Your task to perform on an android device: read, delete, or share a saved page in the chrome app Image 0: 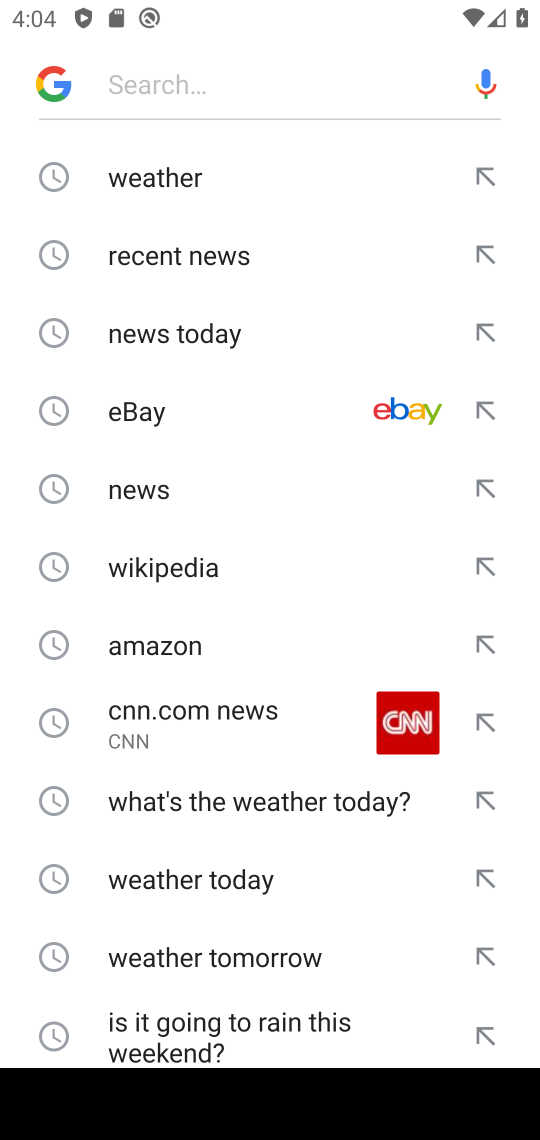
Step 0: press home button
Your task to perform on an android device: read, delete, or share a saved page in the chrome app Image 1: 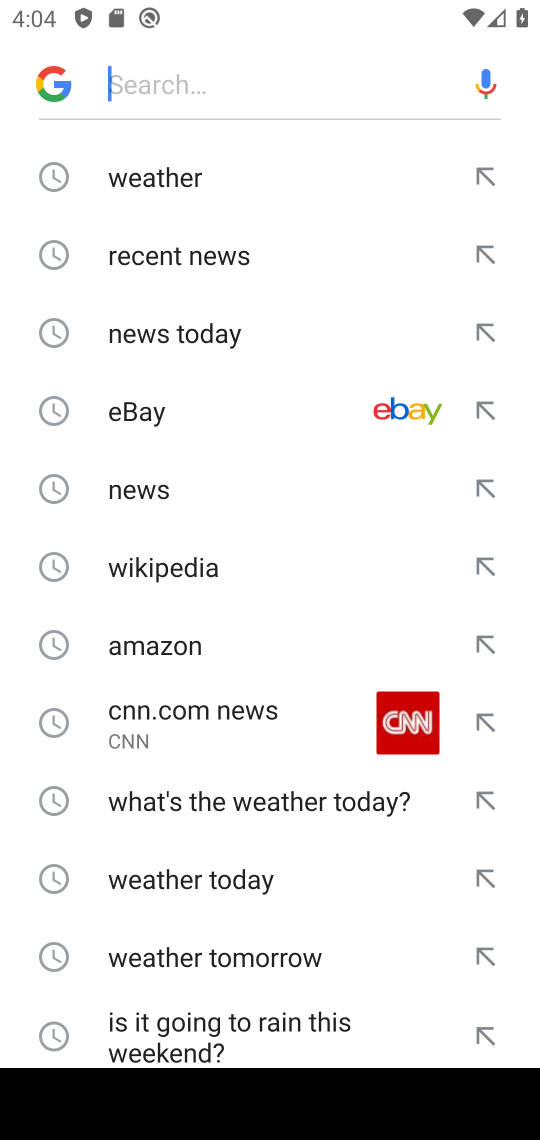
Step 1: press home button
Your task to perform on an android device: read, delete, or share a saved page in the chrome app Image 2: 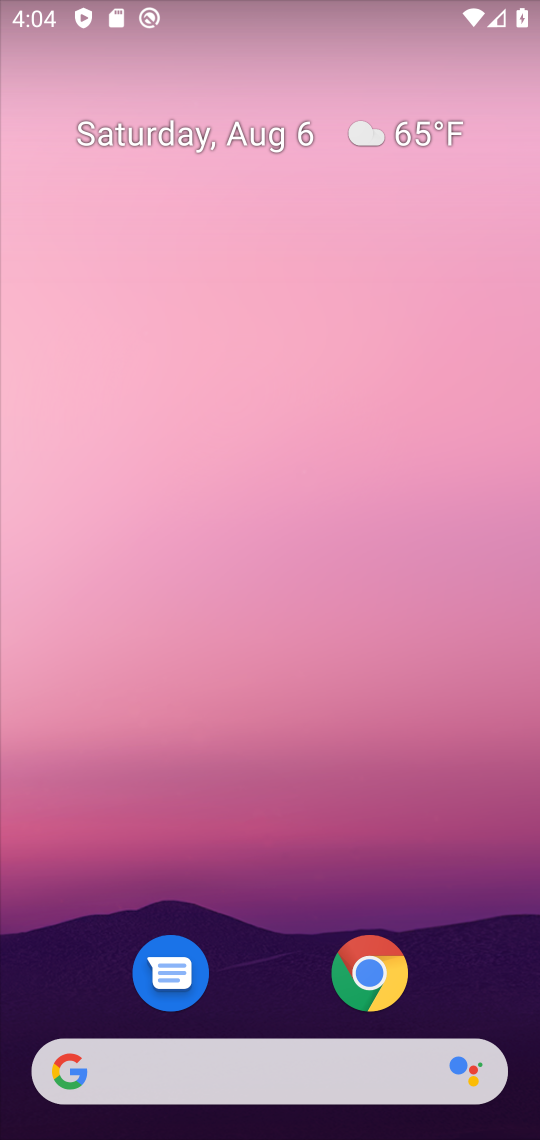
Step 2: drag from (261, 715) to (259, 113)
Your task to perform on an android device: read, delete, or share a saved page in the chrome app Image 3: 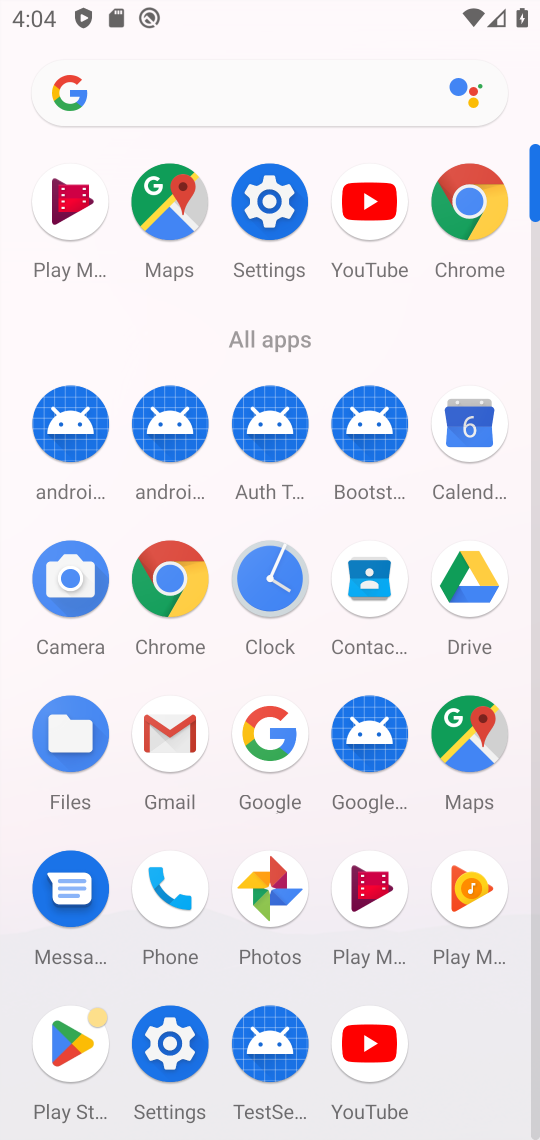
Step 3: click (168, 585)
Your task to perform on an android device: read, delete, or share a saved page in the chrome app Image 4: 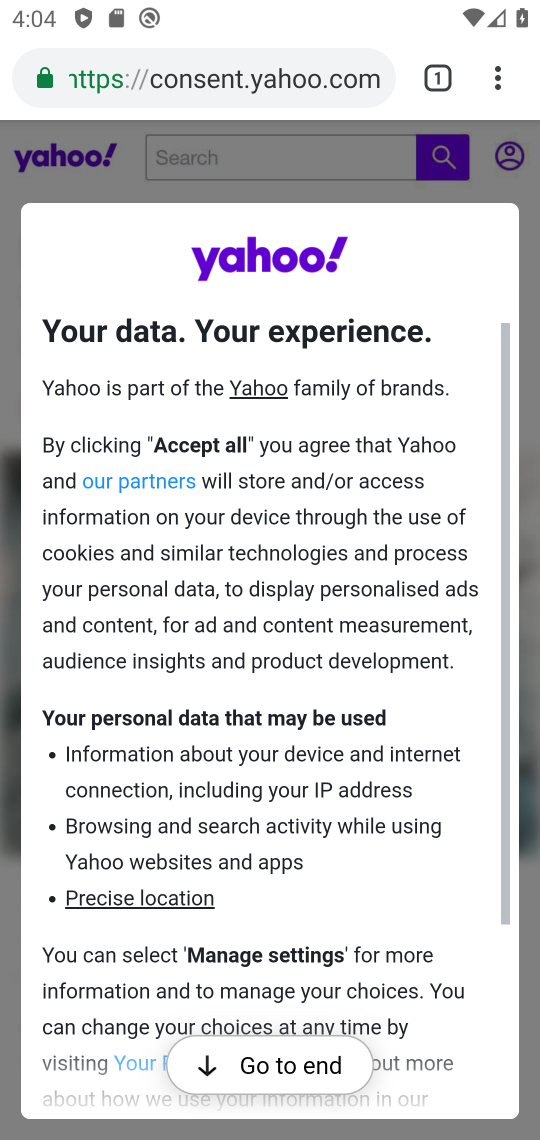
Step 4: task complete